Your task to perform on an android device: turn off airplane mode Image 0: 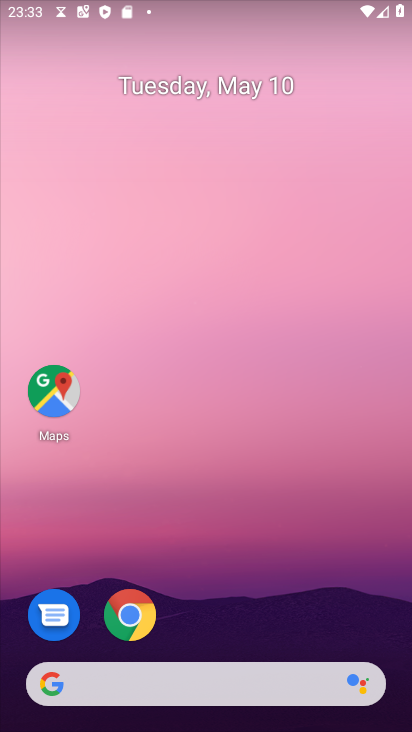
Step 0: drag from (237, 587) to (225, 49)
Your task to perform on an android device: turn off airplane mode Image 1: 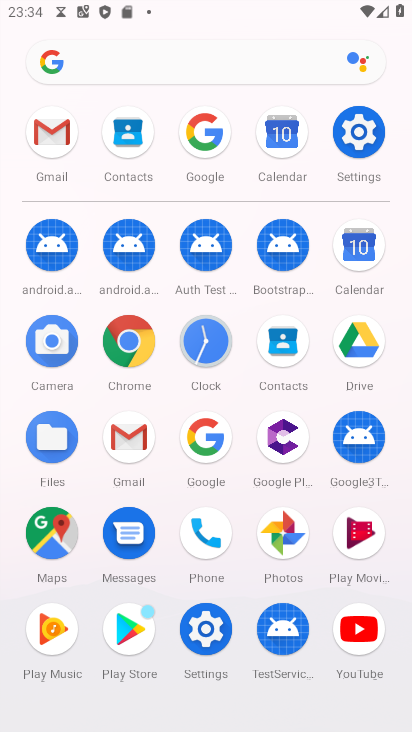
Step 1: click (357, 134)
Your task to perform on an android device: turn off airplane mode Image 2: 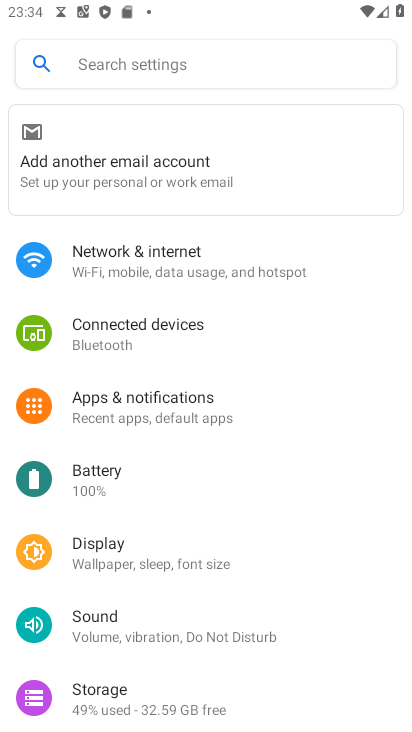
Step 2: drag from (139, 484) to (140, 381)
Your task to perform on an android device: turn off airplane mode Image 3: 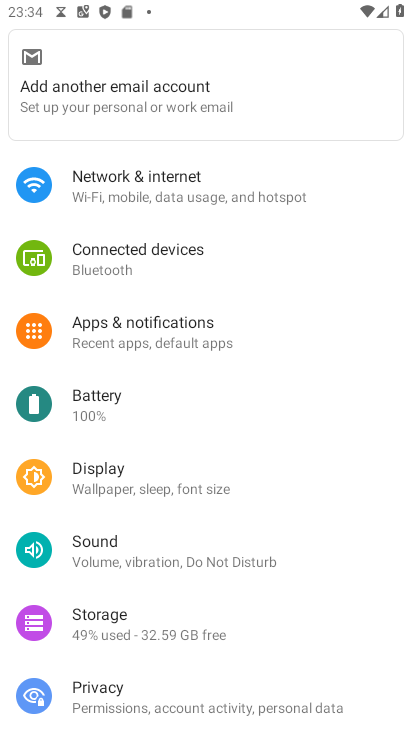
Step 3: click (111, 195)
Your task to perform on an android device: turn off airplane mode Image 4: 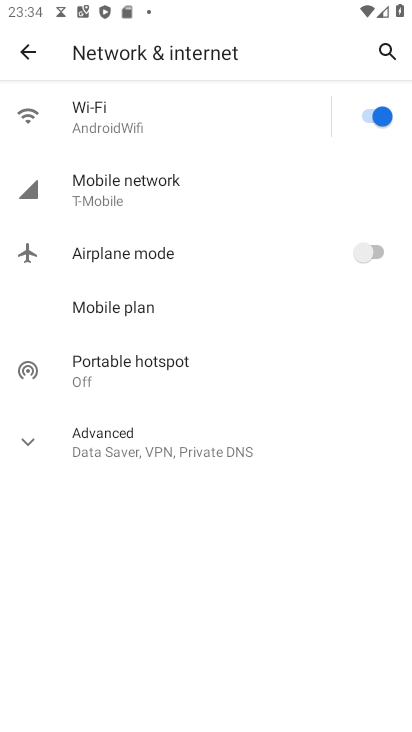
Step 4: task complete